Your task to perform on an android device: Search for flights from Mexico city to Boston Image 0: 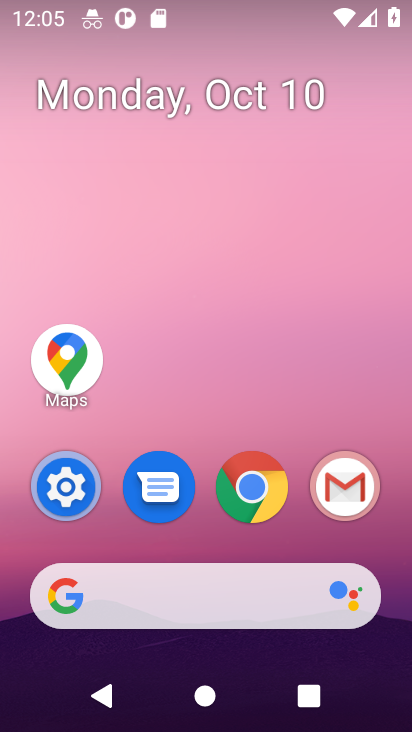
Step 0: click (236, 489)
Your task to perform on an android device: Search for flights from Mexico city to Boston Image 1: 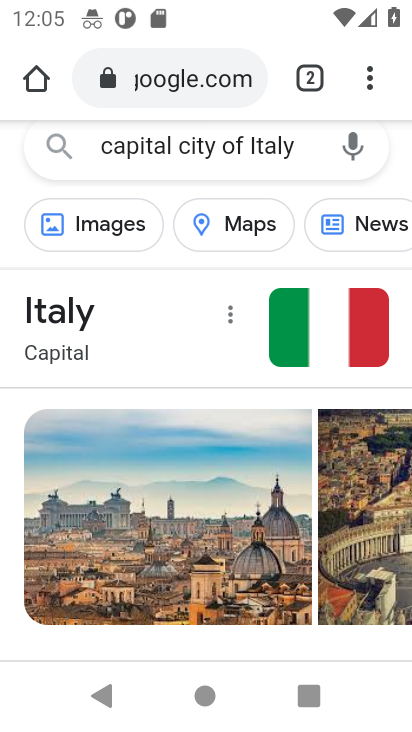
Step 1: click (169, 85)
Your task to perform on an android device: Search for flights from Mexico city to Boston Image 2: 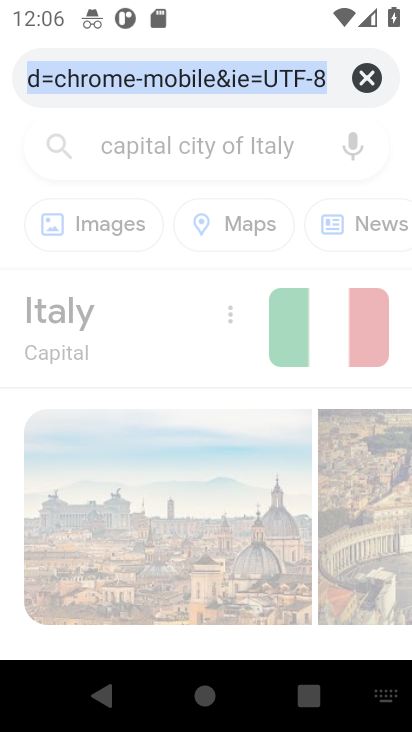
Step 2: type "flights from mexico city to Boston"
Your task to perform on an android device: Search for flights from Mexico city to Boston Image 3: 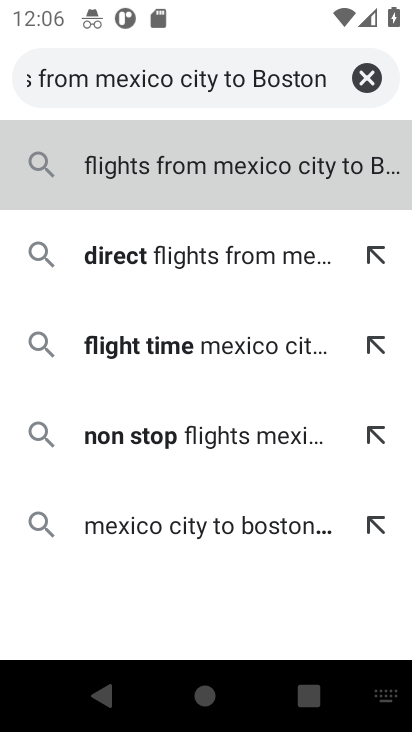
Step 3: press enter
Your task to perform on an android device: Search for flights from Mexico city to Boston Image 4: 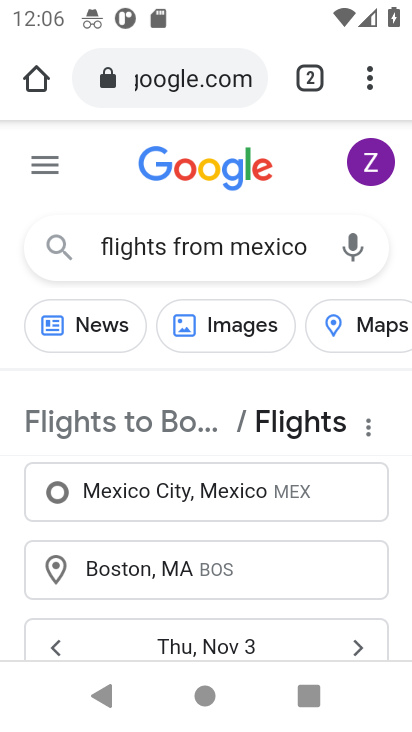
Step 4: drag from (265, 526) to (280, 236)
Your task to perform on an android device: Search for flights from Mexico city to Boston Image 5: 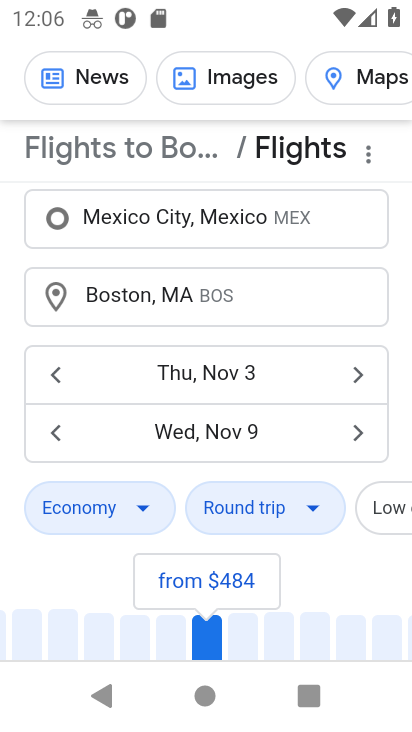
Step 5: drag from (245, 507) to (255, 219)
Your task to perform on an android device: Search for flights from Mexico city to Boston Image 6: 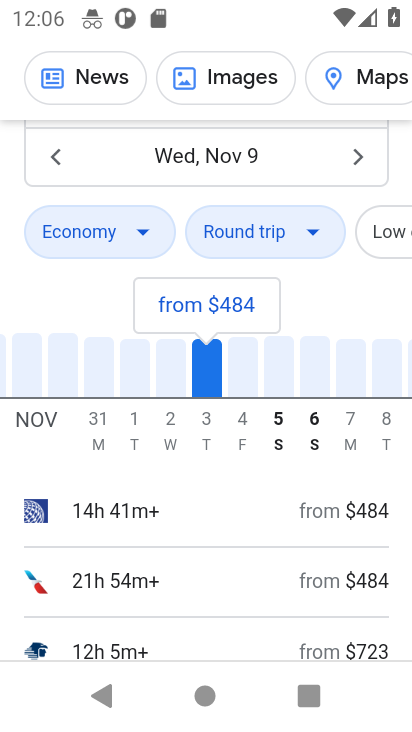
Step 6: drag from (217, 576) to (214, 256)
Your task to perform on an android device: Search for flights from Mexico city to Boston Image 7: 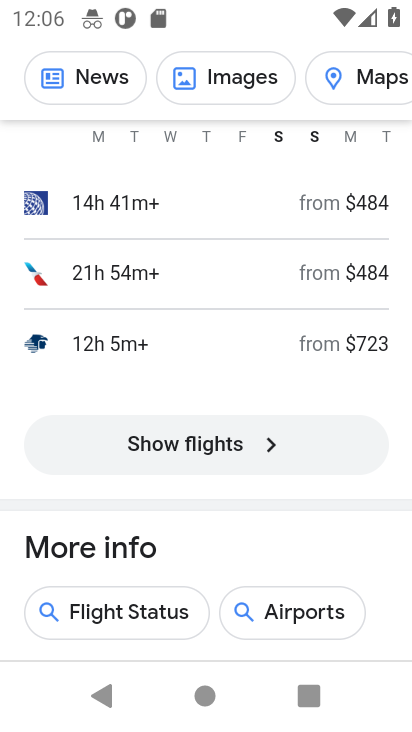
Step 7: click (143, 510)
Your task to perform on an android device: Search for flights from Mexico city to Boston Image 8: 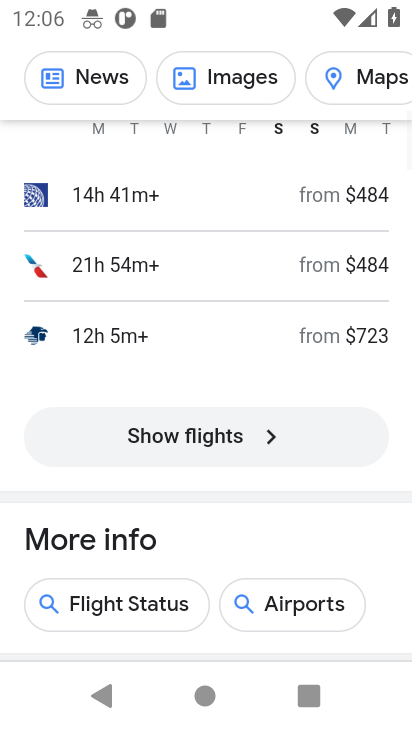
Step 8: click (175, 433)
Your task to perform on an android device: Search for flights from Mexico city to Boston Image 9: 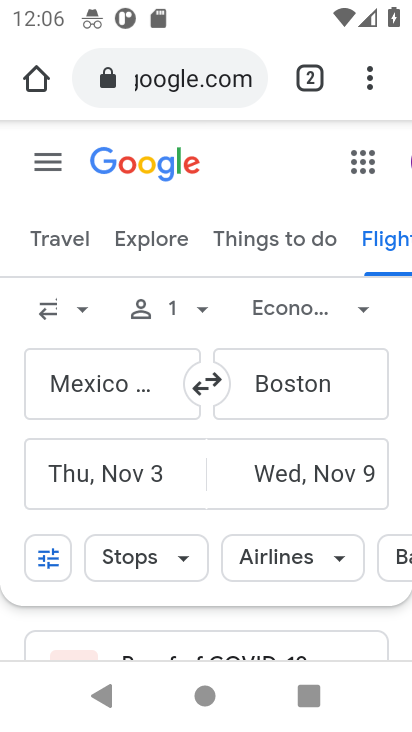
Step 9: task complete